Your task to perform on an android device: open the mobile data screen to see how much data has been used Image 0: 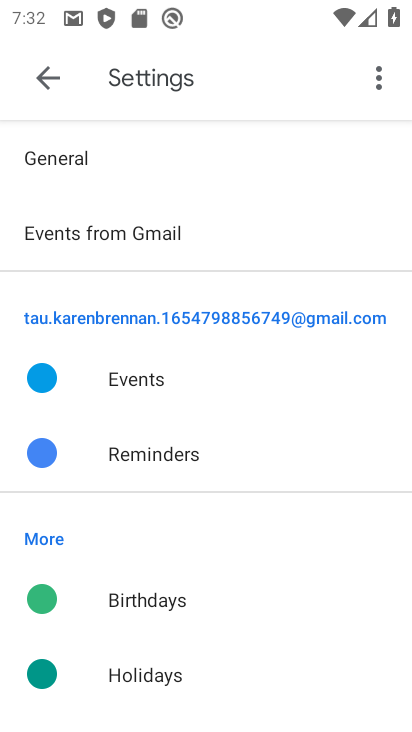
Step 0: press home button
Your task to perform on an android device: open the mobile data screen to see how much data has been used Image 1: 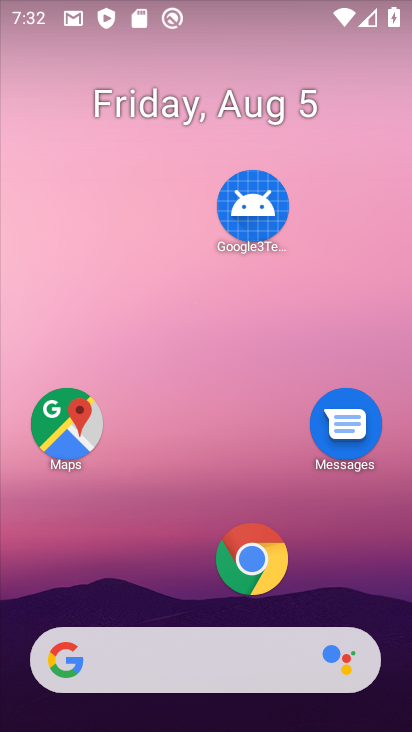
Step 1: drag from (181, 625) to (105, 63)
Your task to perform on an android device: open the mobile data screen to see how much data has been used Image 2: 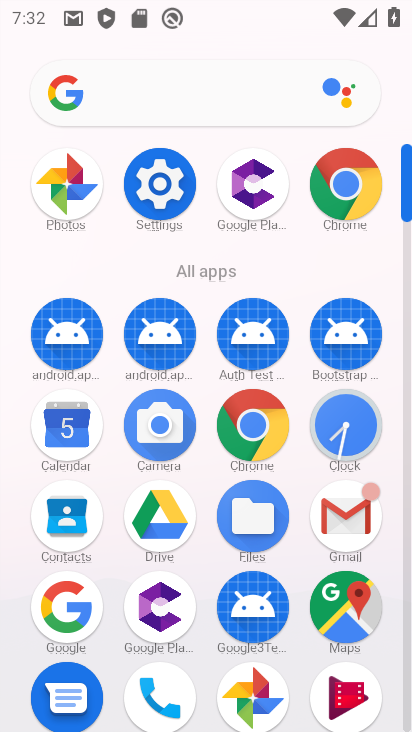
Step 2: click (130, 189)
Your task to perform on an android device: open the mobile data screen to see how much data has been used Image 3: 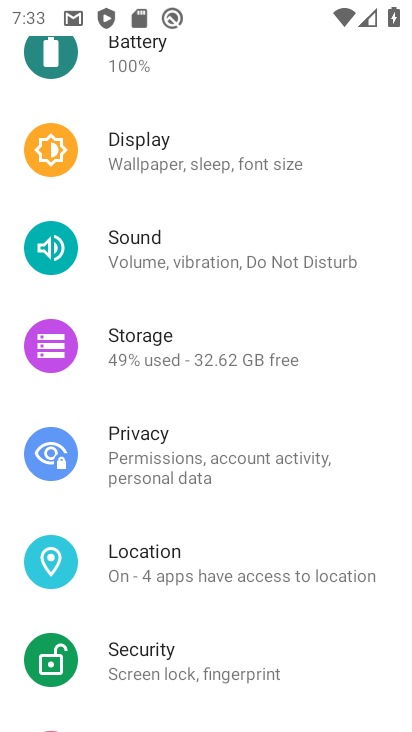
Step 3: drag from (128, 159) to (123, 381)
Your task to perform on an android device: open the mobile data screen to see how much data has been used Image 4: 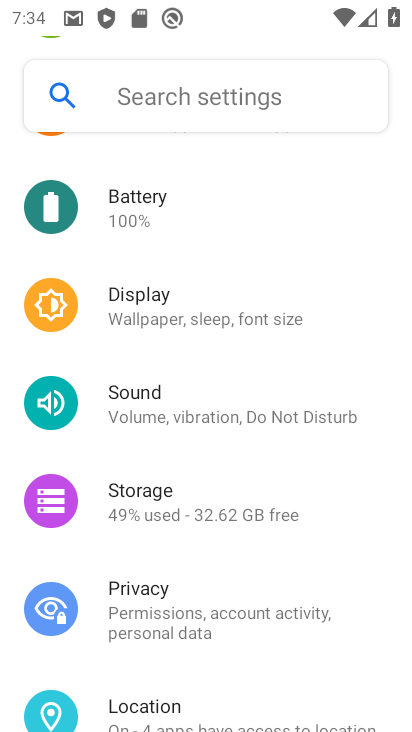
Step 4: drag from (170, 241) to (175, 486)
Your task to perform on an android device: open the mobile data screen to see how much data has been used Image 5: 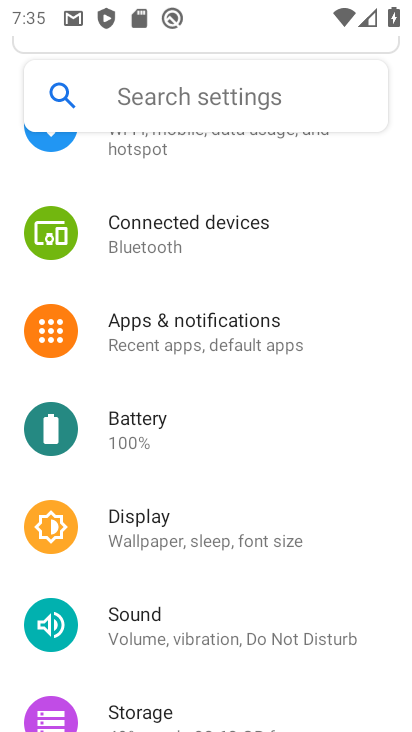
Step 5: drag from (179, 160) to (158, 499)
Your task to perform on an android device: open the mobile data screen to see how much data has been used Image 6: 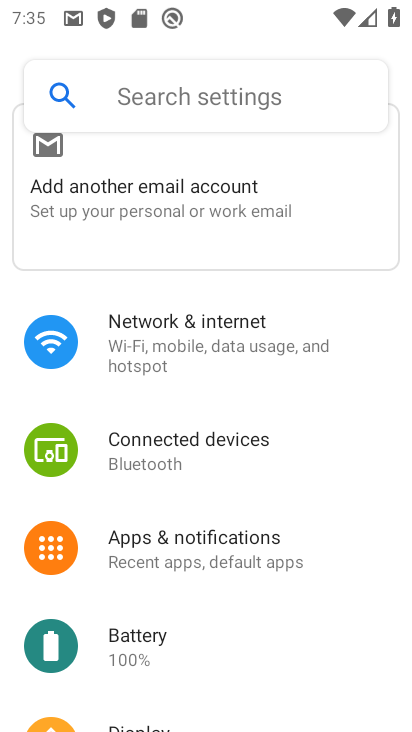
Step 6: click (167, 393)
Your task to perform on an android device: open the mobile data screen to see how much data has been used Image 7: 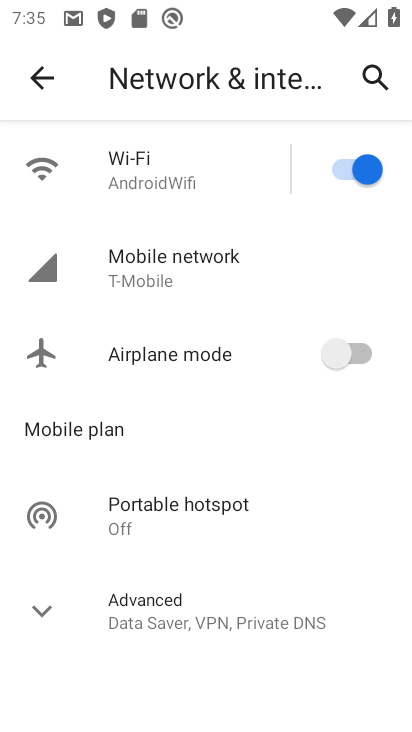
Step 7: click (176, 300)
Your task to perform on an android device: open the mobile data screen to see how much data has been used Image 8: 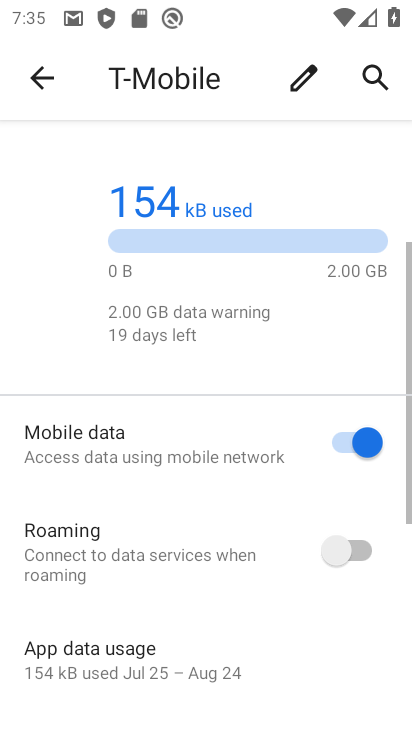
Step 8: task complete